Your task to perform on an android device: toggle priority inbox in the gmail app Image 0: 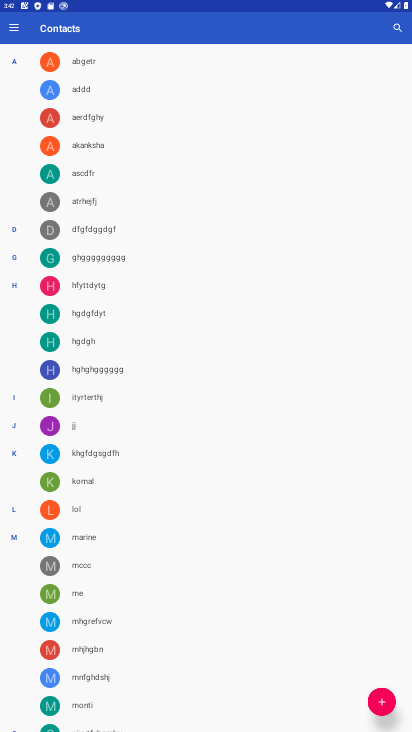
Step 0: press home button
Your task to perform on an android device: toggle priority inbox in the gmail app Image 1: 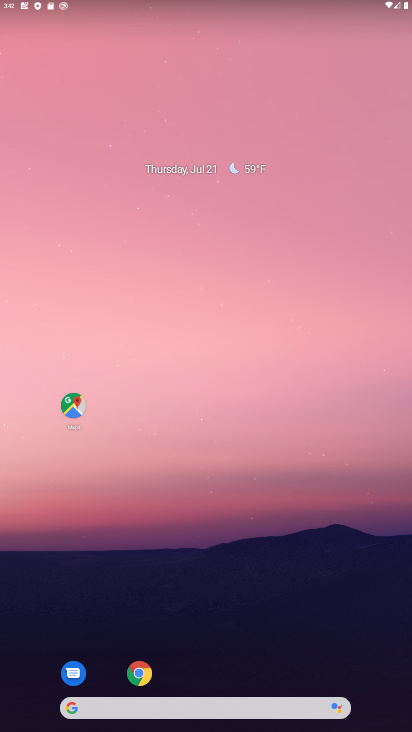
Step 1: drag from (376, 657) to (336, 191)
Your task to perform on an android device: toggle priority inbox in the gmail app Image 2: 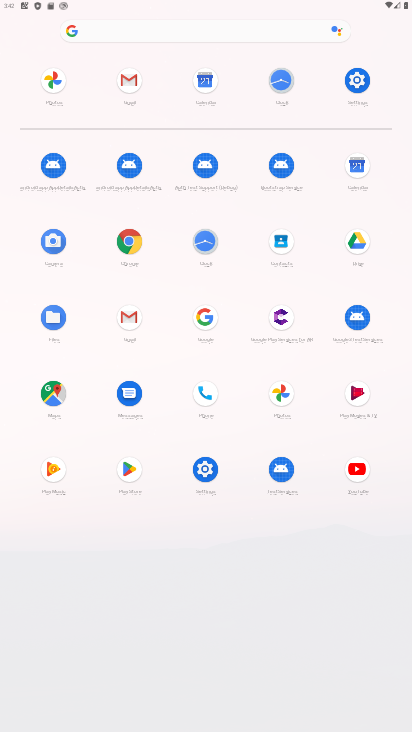
Step 2: click (127, 316)
Your task to perform on an android device: toggle priority inbox in the gmail app Image 3: 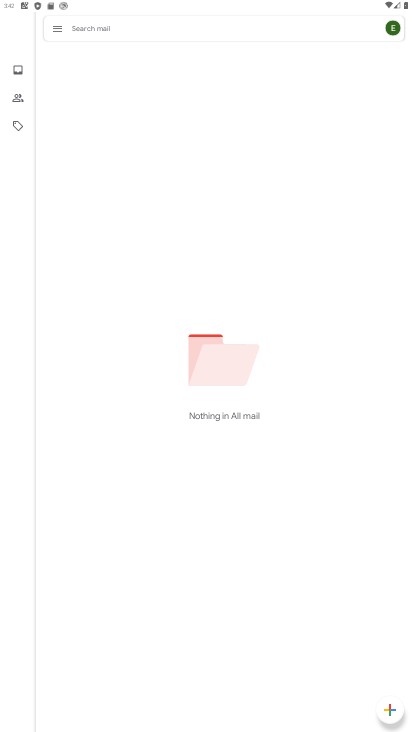
Step 3: click (54, 30)
Your task to perform on an android device: toggle priority inbox in the gmail app Image 4: 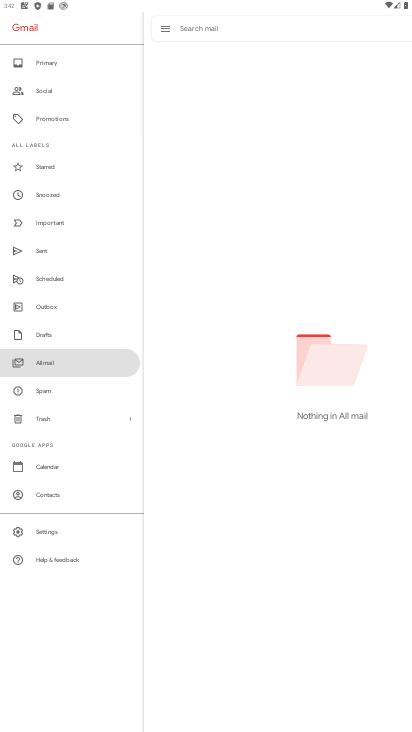
Step 4: click (50, 527)
Your task to perform on an android device: toggle priority inbox in the gmail app Image 5: 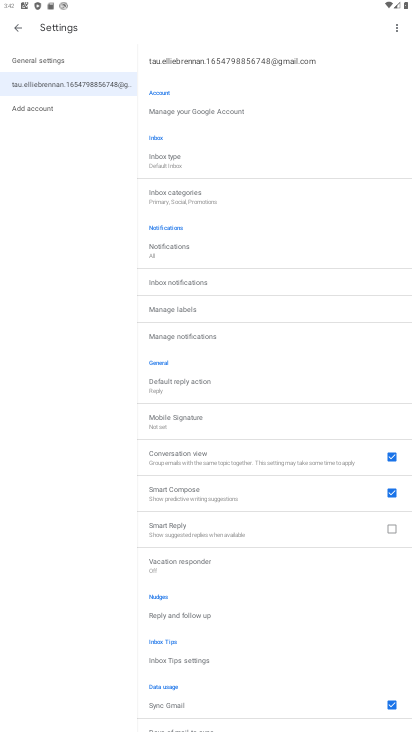
Step 5: click (171, 162)
Your task to perform on an android device: toggle priority inbox in the gmail app Image 6: 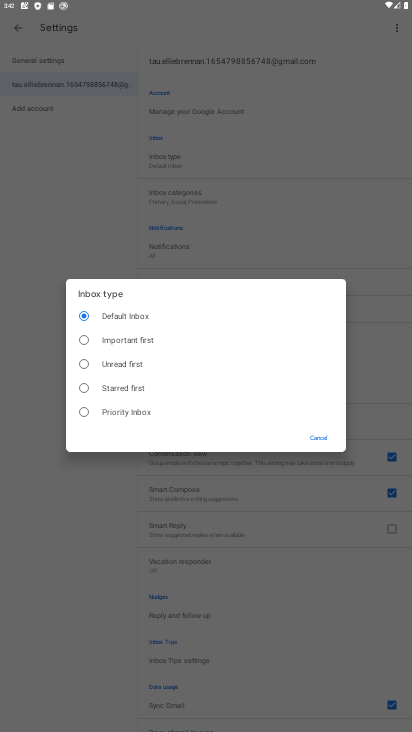
Step 6: click (92, 408)
Your task to perform on an android device: toggle priority inbox in the gmail app Image 7: 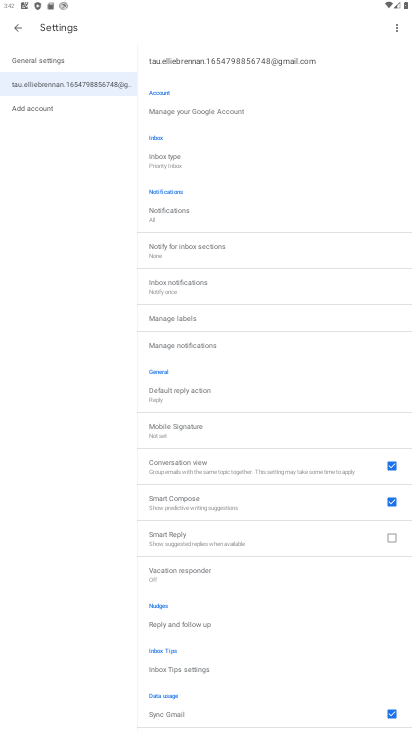
Step 7: task complete